Your task to perform on an android device: check battery use Image 0: 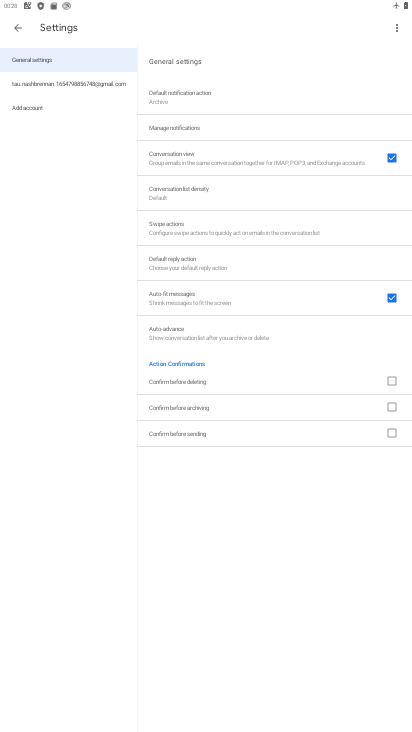
Step 0: press home button
Your task to perform on an android device: check battery use Image 1: 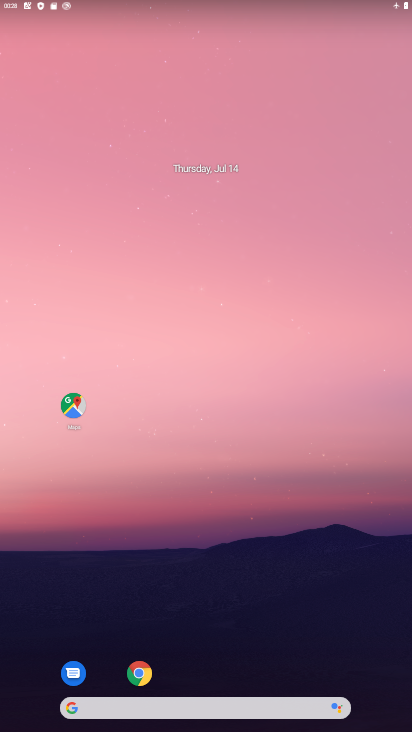
Step 1: drag from (216, 655) to (221, 145)
Your task to perform on an android device: check battery use Image 2: 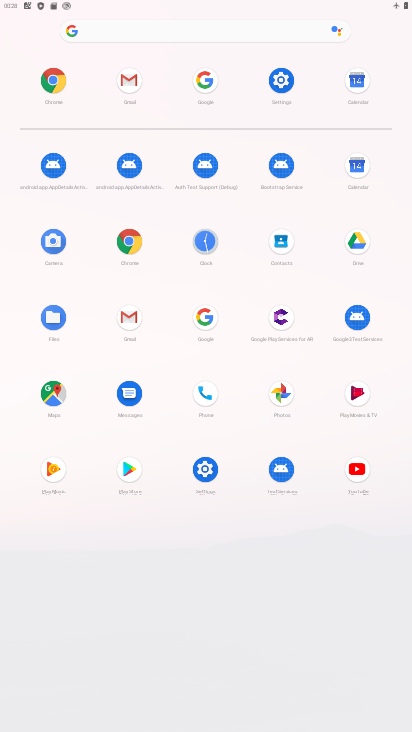
Step 2: click (277, 82)
Your task to perform on an android device: check battery use Image 3: 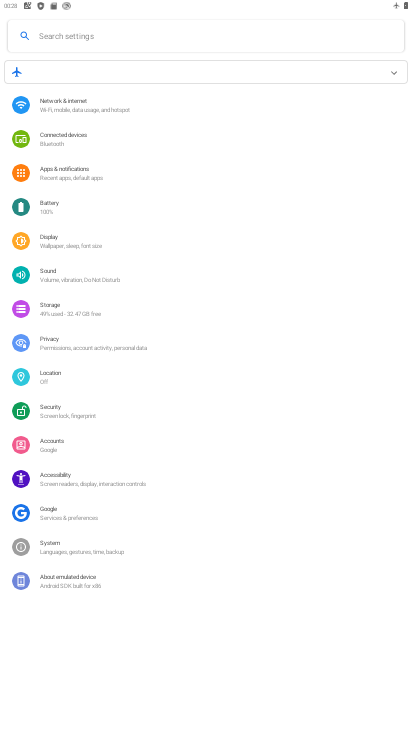
Step 3: click (57, 211)
Your task to perform on an android device: check battery use Image 4: 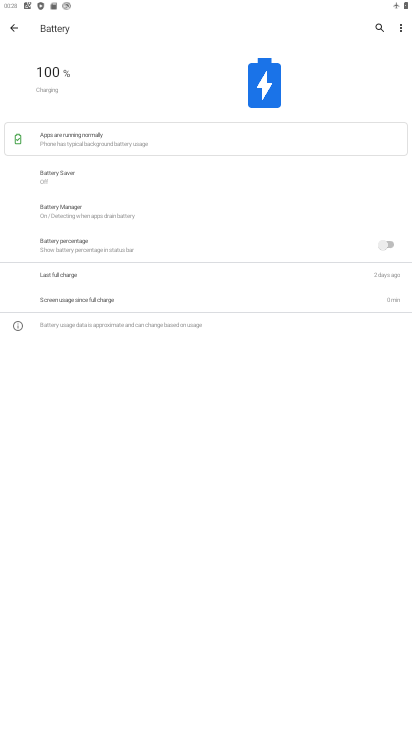
Step 4: click (392, 27)
Your task to perform on an android device: check battery use Image 5: 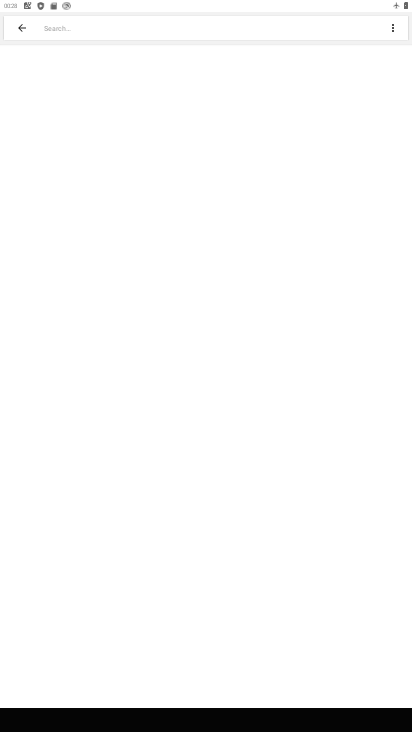
Step 5: click (394, 28)
Your task to perform on an android device: check battery use Image 6: 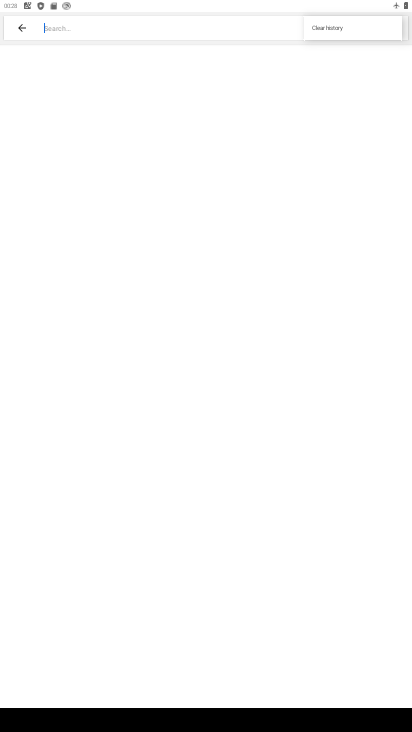
Step 6: press back button
Your task to perform on an android device: check battery use Image 7: 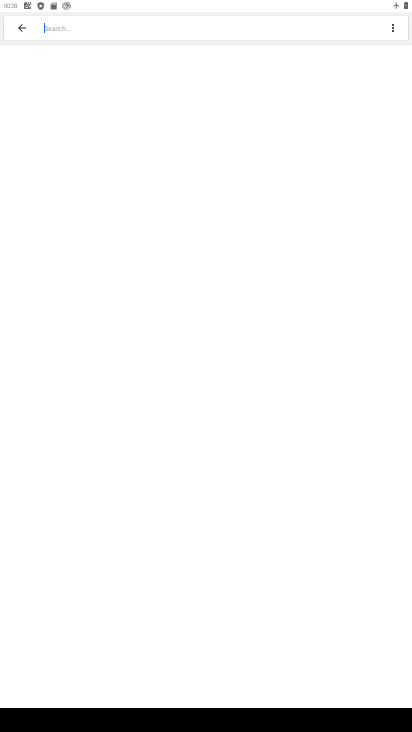
Step 7: click (392, 23)
Your task to perform on an android device: check battery use Image 8: 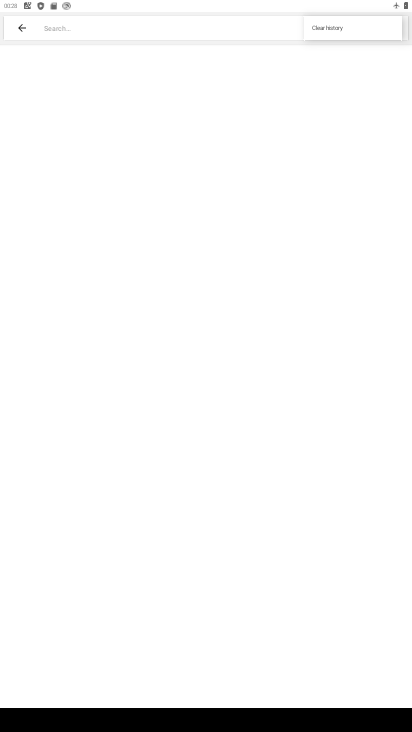
Step 8: press back button
Your task to perform on an android device: check battery use Image 9: 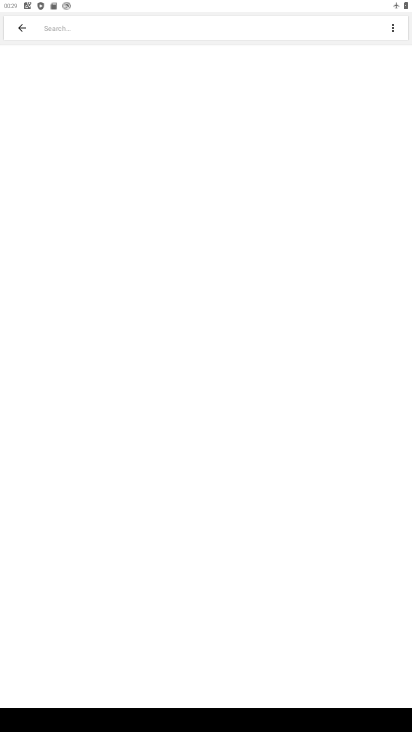
Step 9: press back button
Your task to perform on an android device: check battery use Image 10: 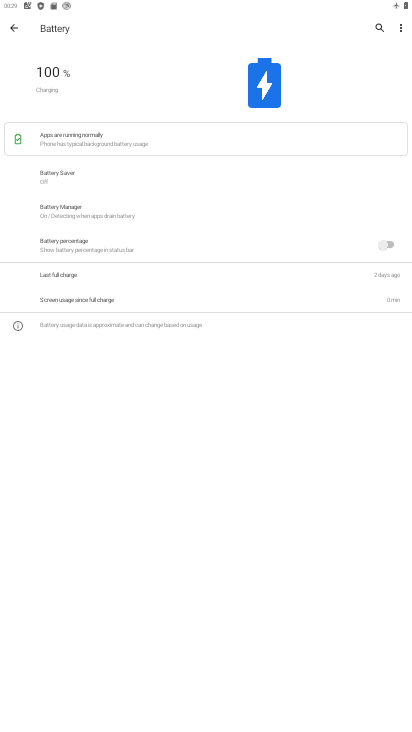
Step 10: click (397, 28)
Your task to perform on an android device: check battery use Image 11: 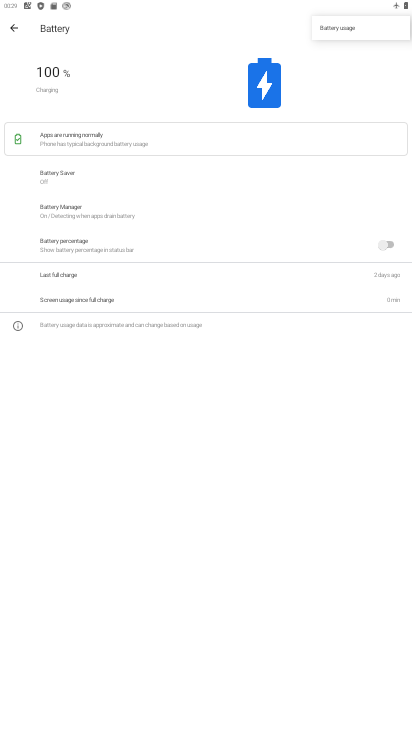
Step 11: click (352, 28)
Your task to perform on an android device: check battery use Image 12: 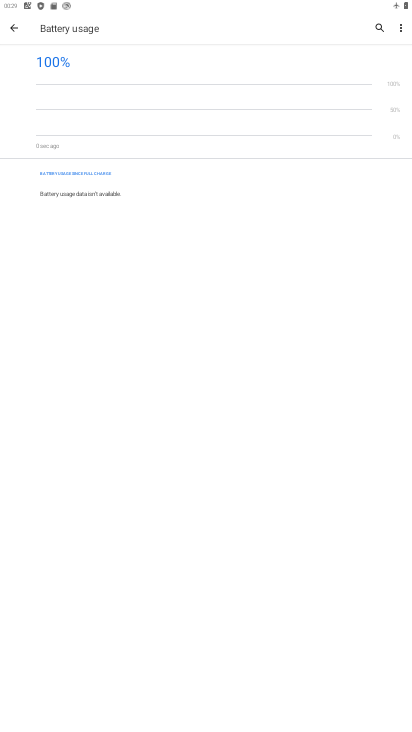
Step 12: task complete